Your task to perform on an android device: Open my contact list Image 0: 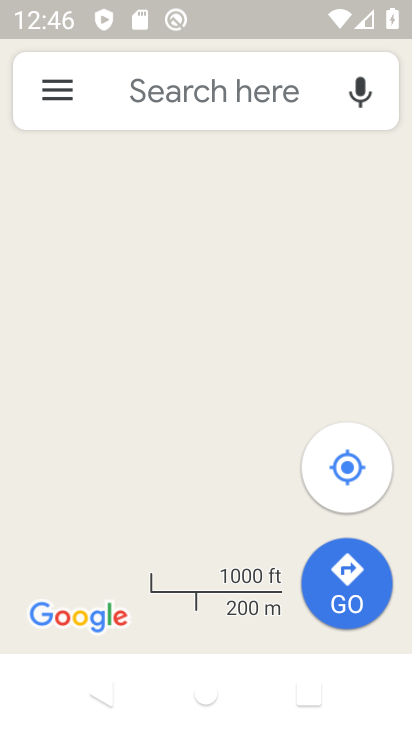
Step 0: press home button
Your task to perform on an android device: Open my contact list Image 1: 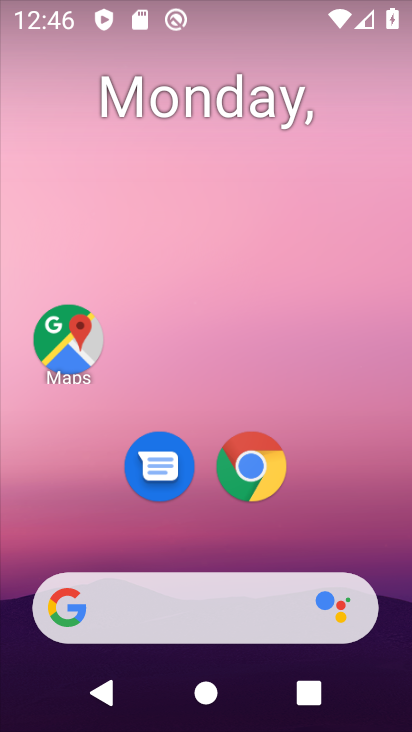
Step 1: drag from (211, 550) to (229, 1)
Your task to perform on an android device: Open my contact list Image 2: 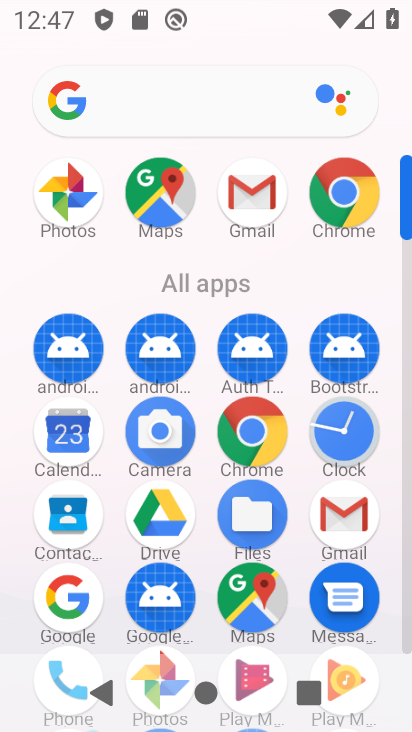
Step 2: click (61, 535)
Your task to perform on an android device: Open my contact list Image 3: 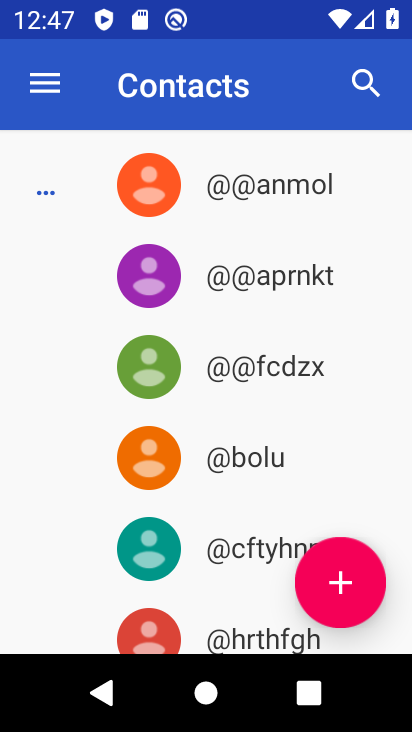
Step 3: task complete